Your task to perform on an android device: turn off airplane mode Image 0: 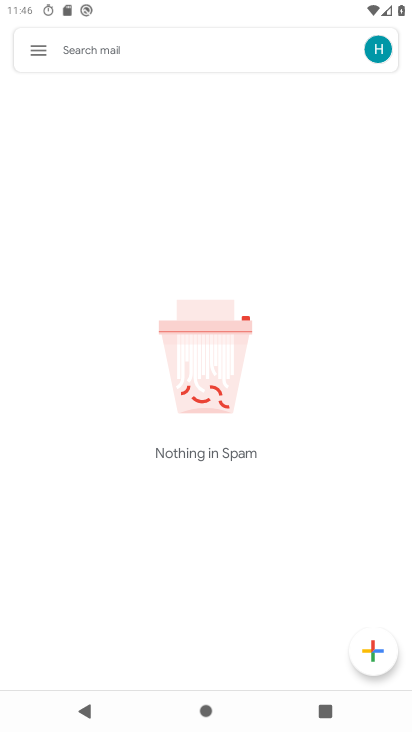
Step 0: press home button
Your task to perform on an android device: turn off airplane mode Image 1: 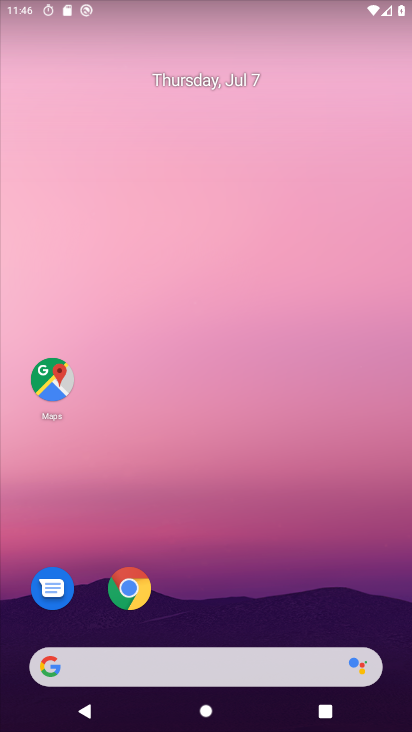
Step 1: drag from (266, 388) to (289, 57)
Your task to perform on an android device: turn off airplane mode Image 2: 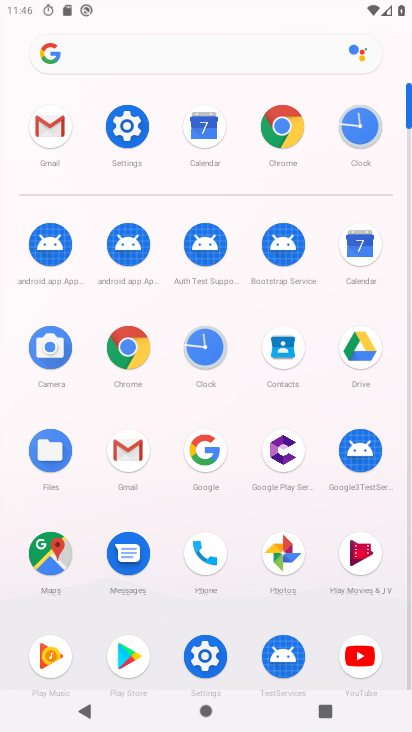
Step 2: click (126, 126)
Your task to perform on an android device: turn off airplane mode Image 3: 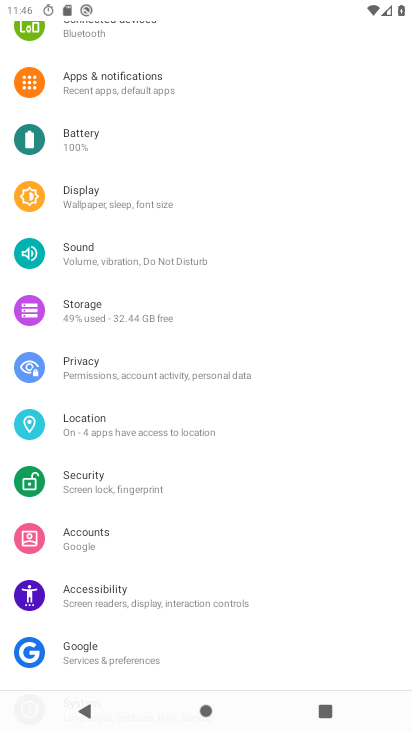
Step 3: drag from (255, 112) to (274, 596)
Your task to perform on an android device: turn off airplane mode Image 4: 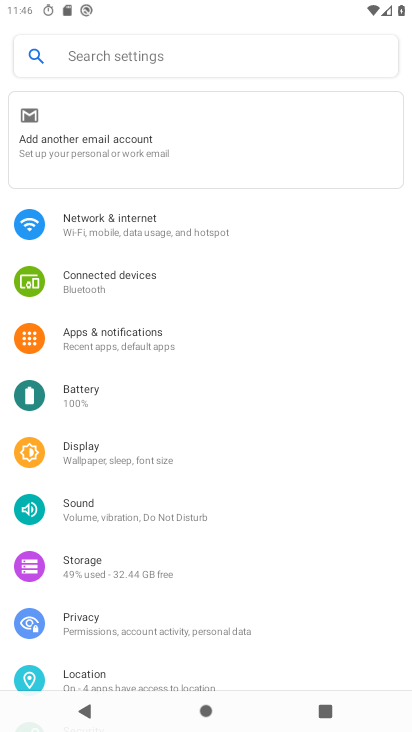
Step 4: click (166, 224)
Your task to perform on an android device: turn off airplane mode Image 5: 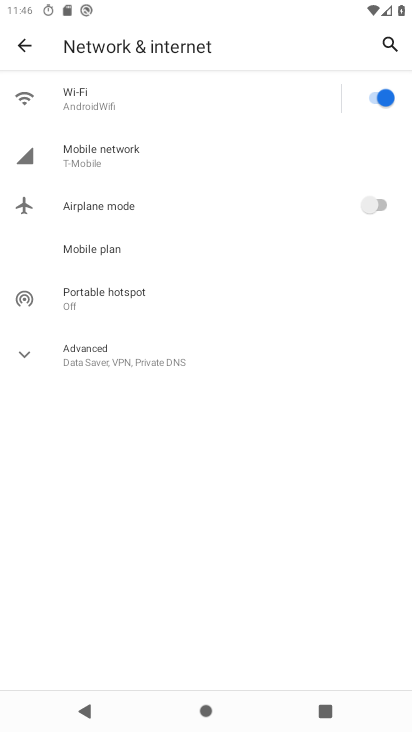
Step 5: task complete